Your task to perform on an android device: toggle translation in the chrome app Image 0: 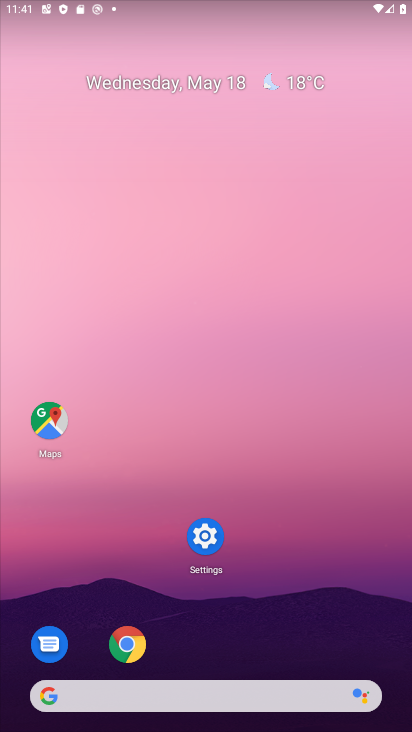
Step 0: click (134, 643)
Your task to perform on an android device: toggle translation in the chrome app Image 1: 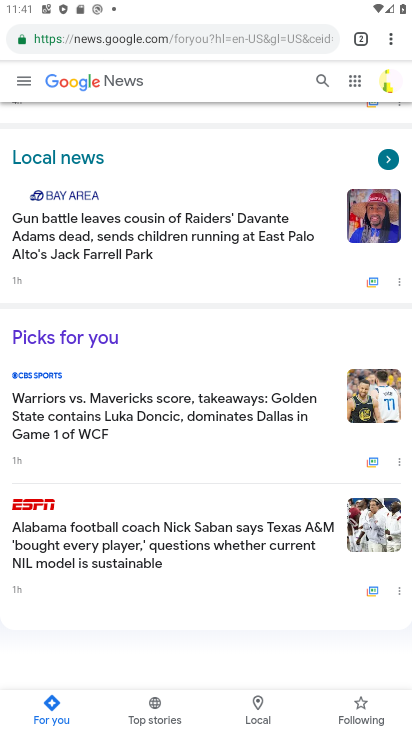
Step 1: drag from (396, 40) to (261, 476)
Your task to perform on an android device: toggle translation in the chrome app Image 2: 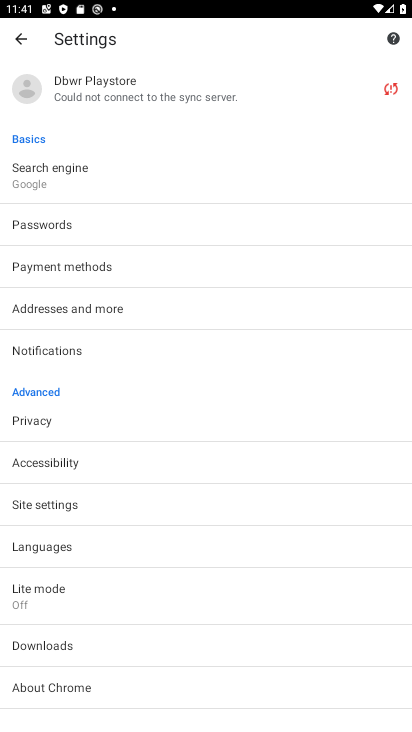
Step 2: click (68, 546)
Your task to perform on an android device: toggle translation in the chrome app Image 3: 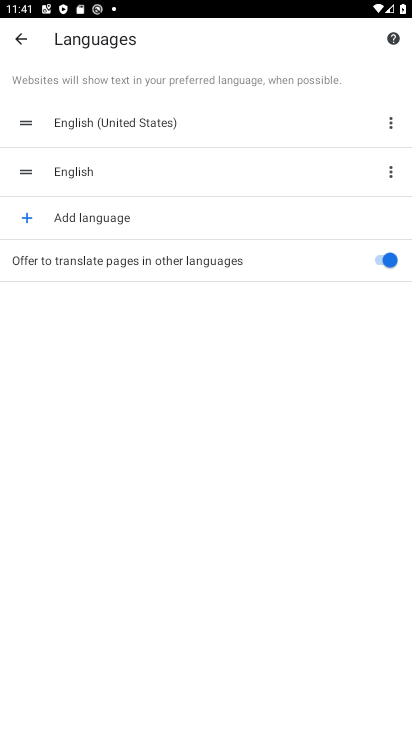
Step 3: click (375, 255)
Your task to perform on an android device: toggle translation in the chrome app Image 4: 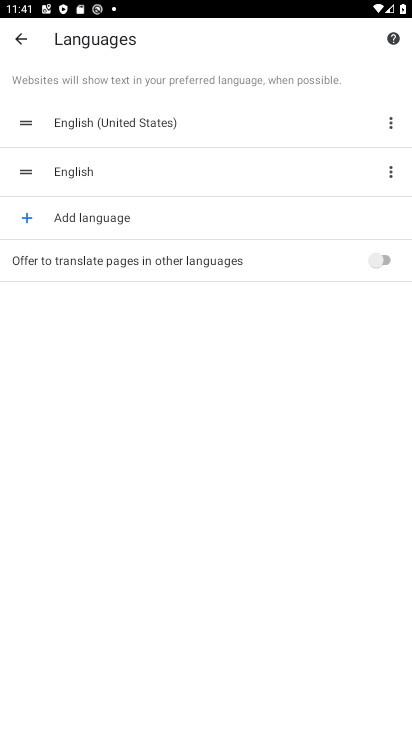
Step 4: task complete